Your task to perform on an android device: toggle priority inbox in the gmail app Image 0: 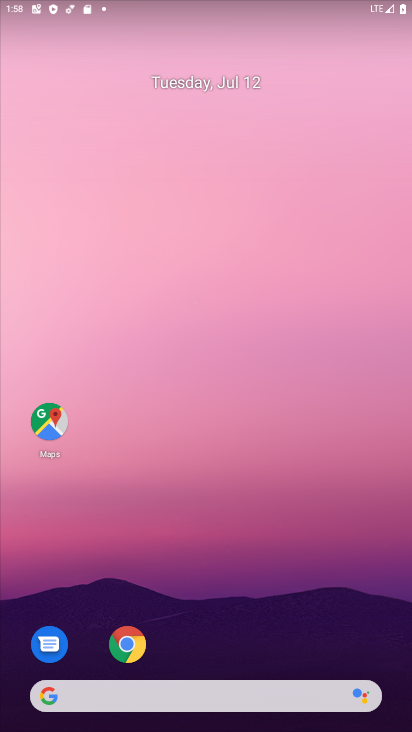
Step 0: drag from (237, 660) to (149, 91)
Your task to perform on an android device: toggle priority inbox in the gmail app Image 1: 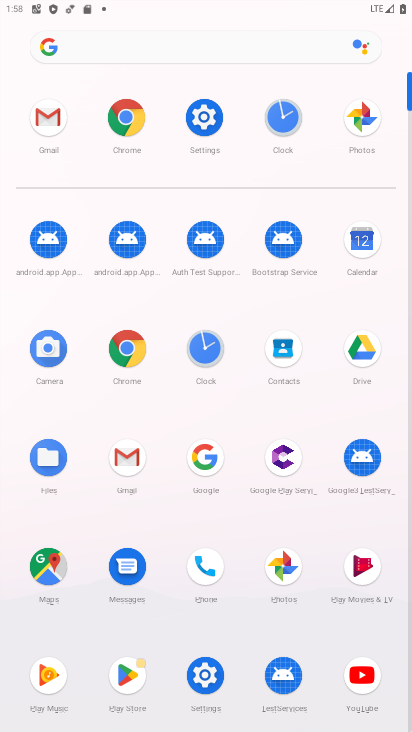
Step 1: click (146, 458)
Your task to perform on an android device: toggle priority inbox in the gmail app Image 2: 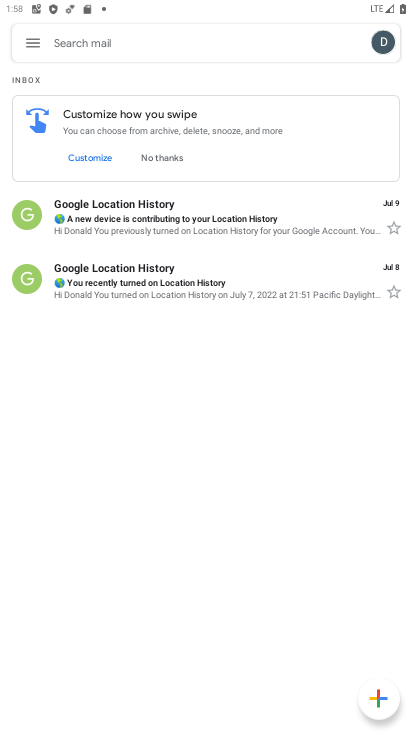
Step 2: click (41, 40)
Your task to perform on an android device: toggle priority inbox in the gmail app Image 3: 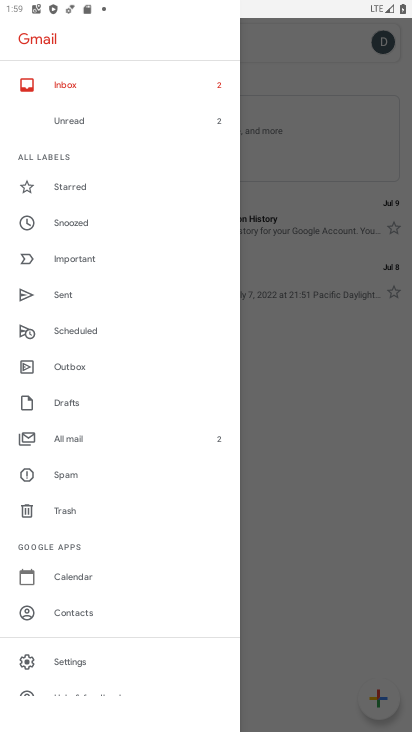
Step 3: click (80, 653)
Your task to perform on an android device: toggle priority inbox in the gmail app Image 4: 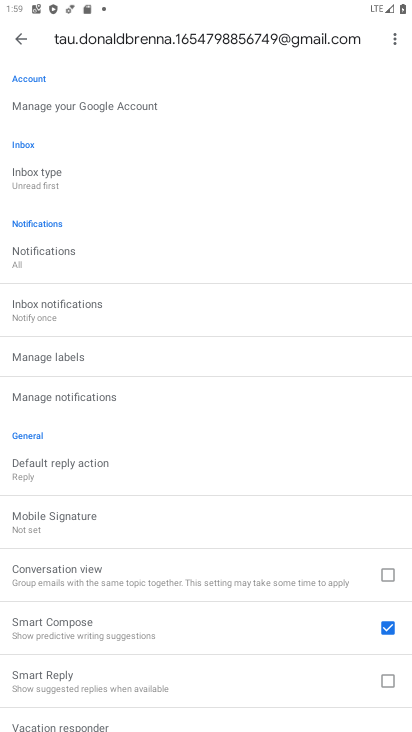
Step 4: click (46, 181)
Your task to perform on an android device: toggle priority inbox in the gmail app Image 5: 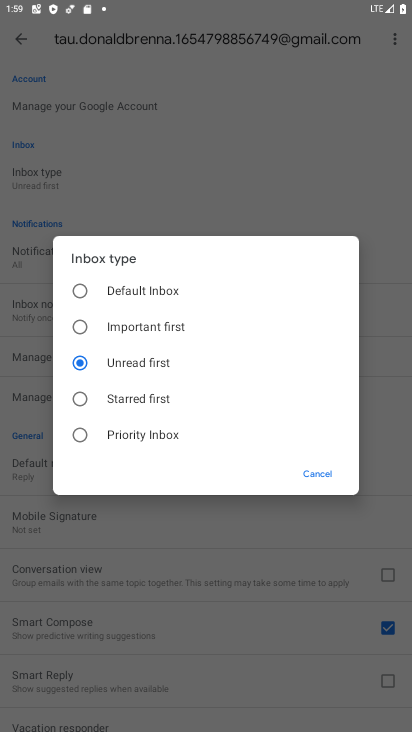
Step 5: click (129, 426)
Your task to perform on an android device: toggle priority inbox in the gmail app Image 6: 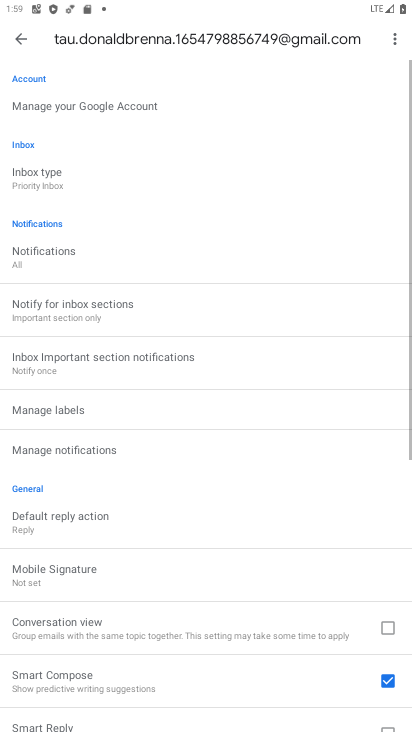
Step 6: task complete